Your task to perform on an android device: Open Chrome and go to the settings page Image 0: 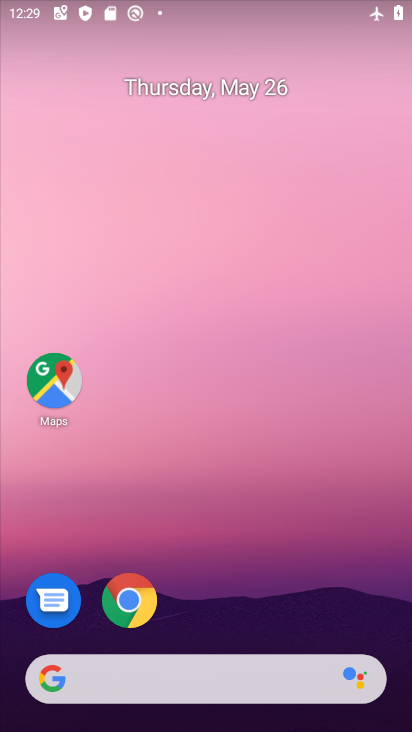
Step 0: click (122, 600)
Your task to perform on an android device: Open Chrome and go to the settings page Image 1: 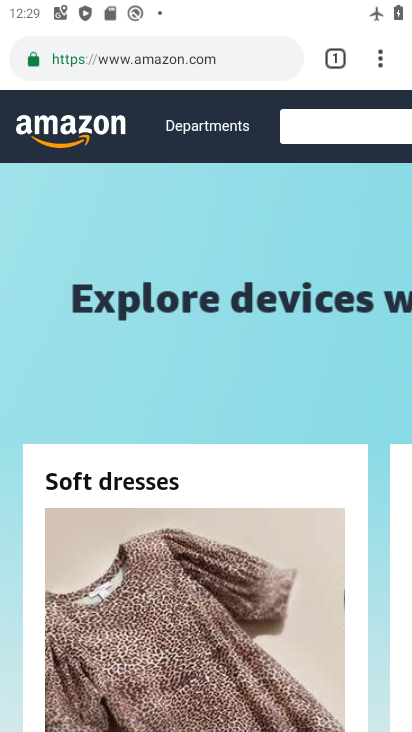
Step 1: task complete